Your task to perform on an android device: What's a good restaurant in Boston? Image 0: 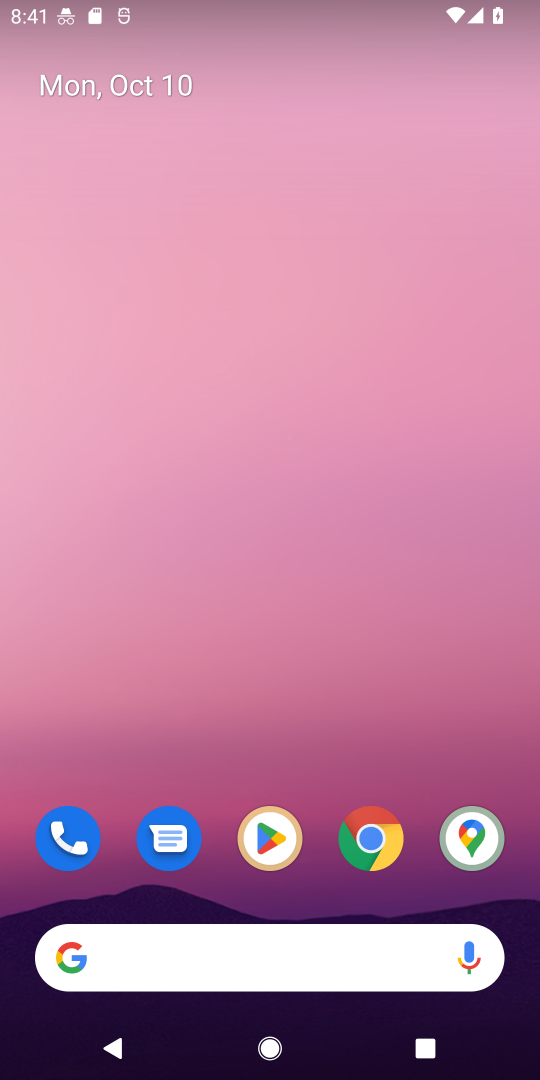
Step 0: click (370, 833)
Your task to perform on an android device: What's a good restaurant in Boston? Image 1: 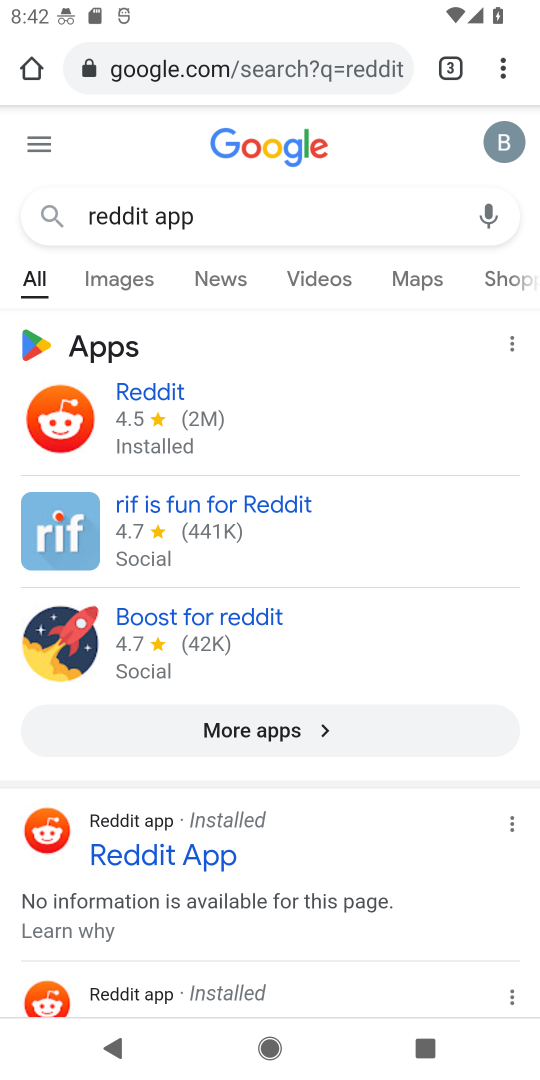
Step 1: click (291, 45)
Your task to perform on an android device: What's a good restaurant in Boston? Image 2: 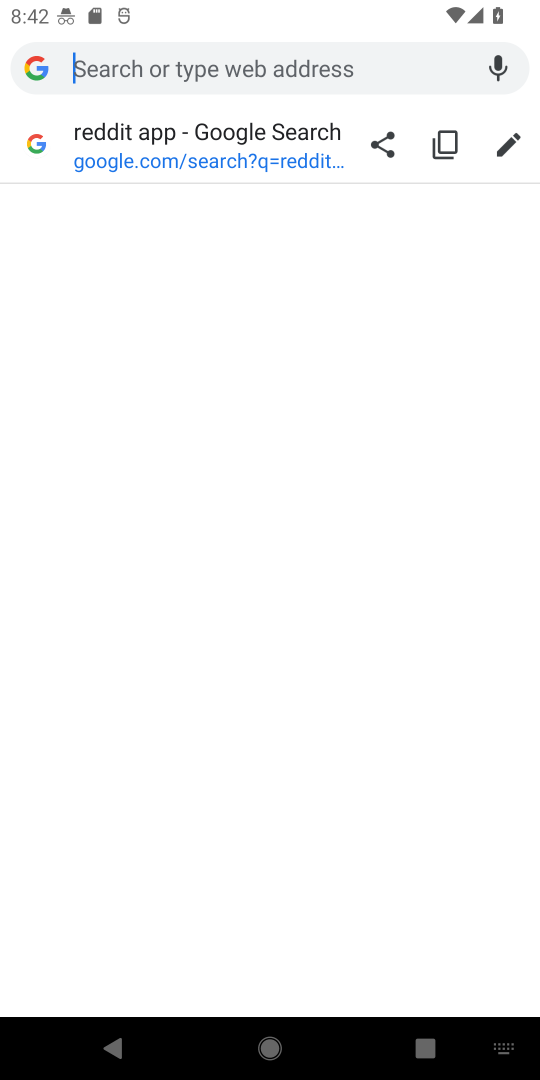
Step 2: type "What's a good restaurant in Boston?"
Your task to perform on an android device: What's a good restaurant in Boston? Image 3: 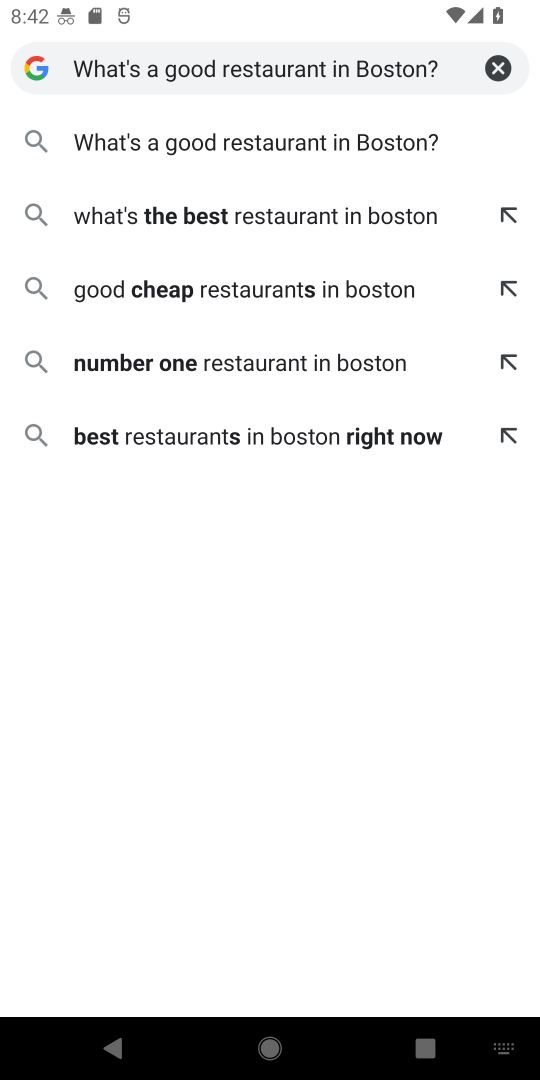
Step 3: click (145, 129)
Your task to perform on an android device: What's a good restaurant in Boston? Image 4: 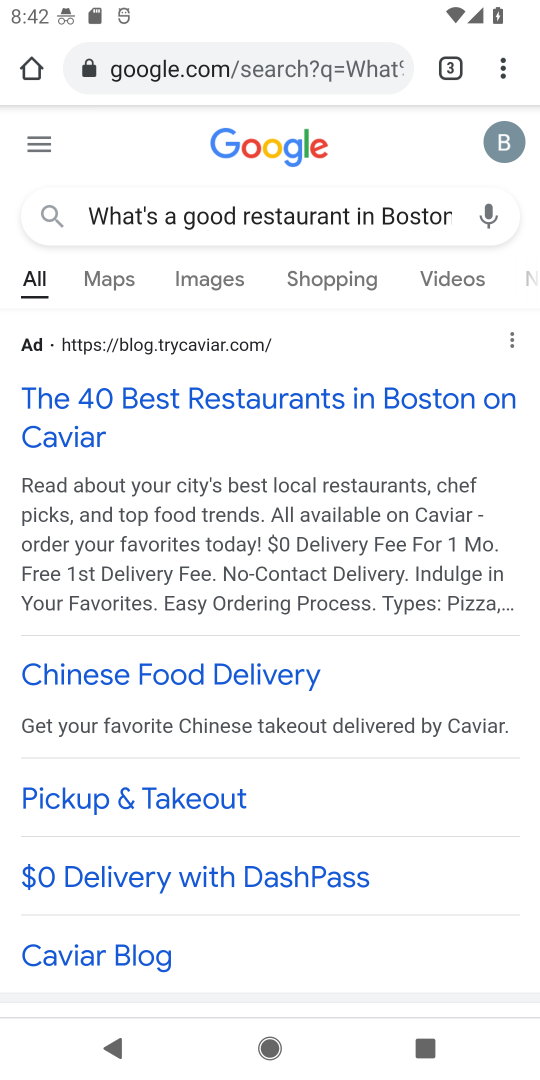
Step 4: click (89, 403)
Your task to perform on an android device: What's a good restaurant in Boston? Image 5: 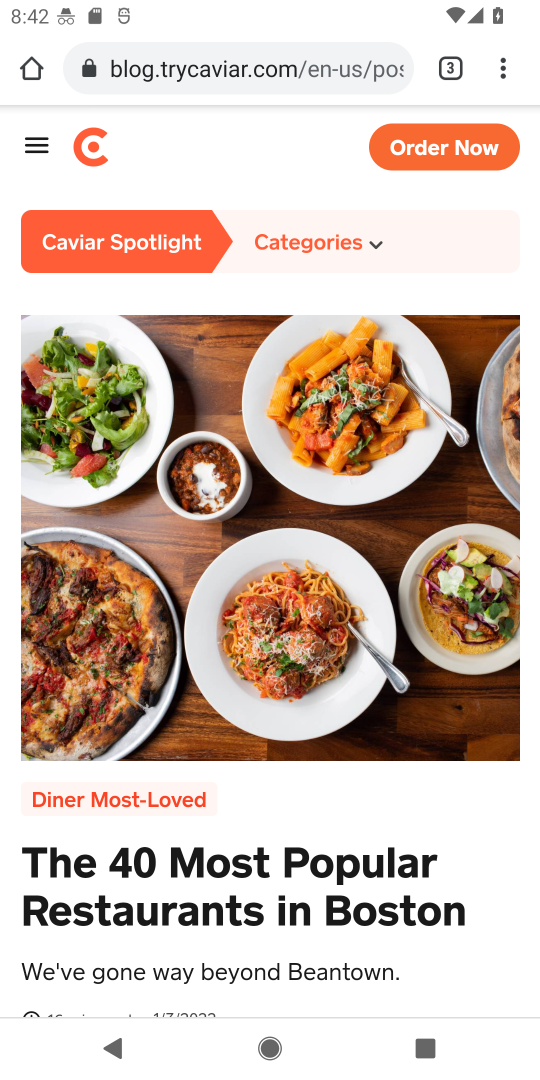
Step 5: task complete